Your task to perform on an android device: move a message to another label in the gmail app Image 0: 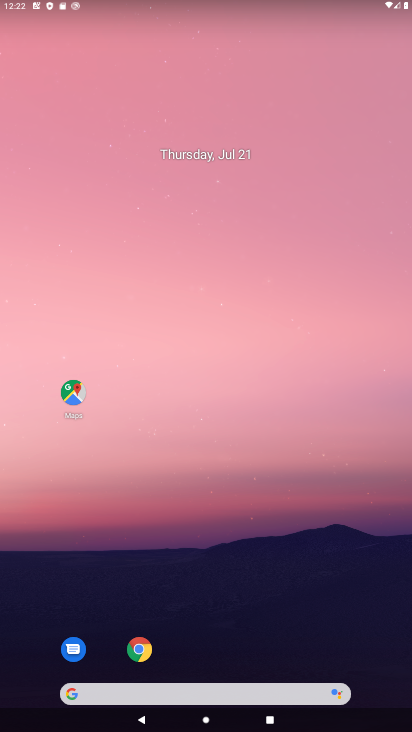
Step 0: drag from (383, 689) to (334, 47)
Your task to perform on an android device: move a message to another label in the gmail app Image 1: 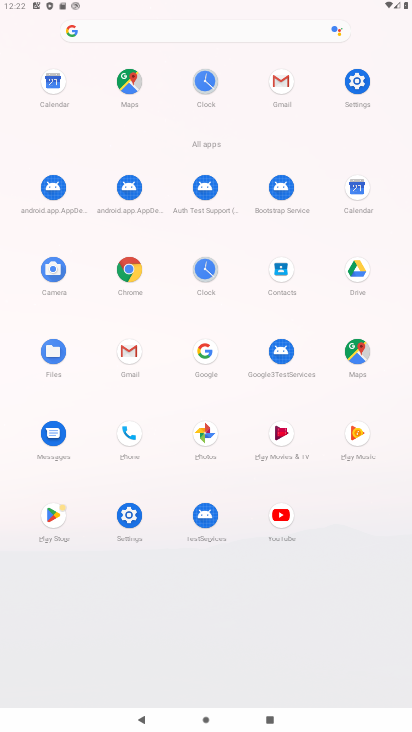
Step 1: click (127, 352)
Your task to perform on an android device: move a message to another label in the gmail app Image 2: 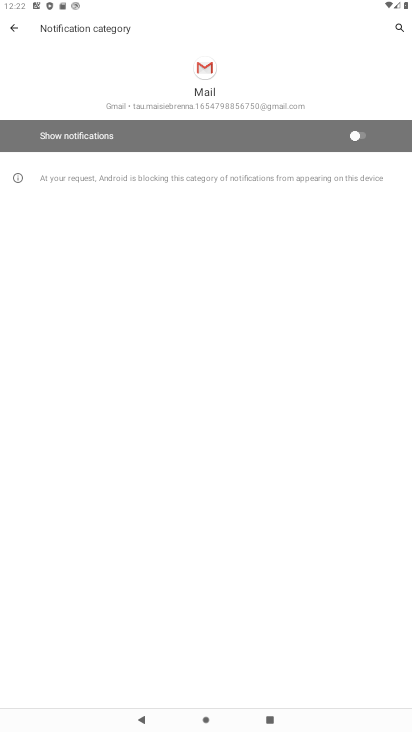
Step 2: press back button
Your task to perform on an android device: move a message to another label in the gmail app Image 3: 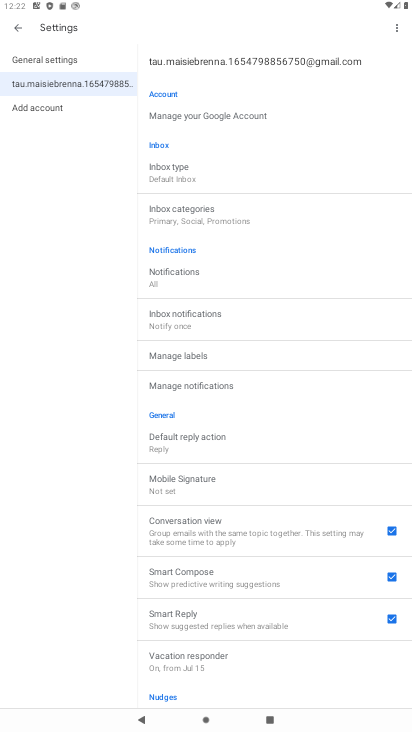
Step 3: press back button
Your task to perform on an android device: move a message to another label in the gmail app Image 4: 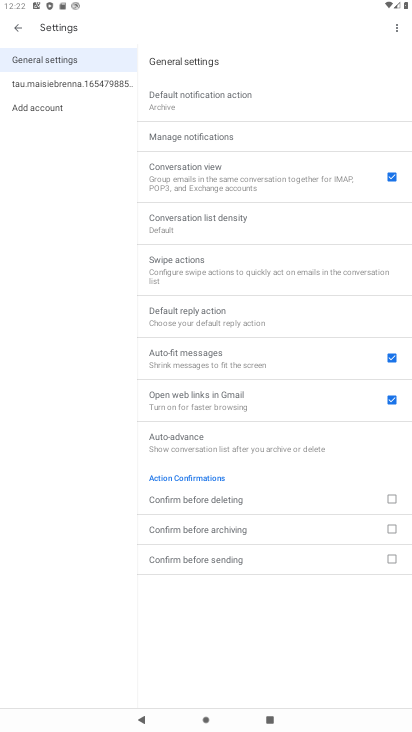
Step 4: press back button
Your task to perform on an android device: move a message to another label in the gmail app Image 5: 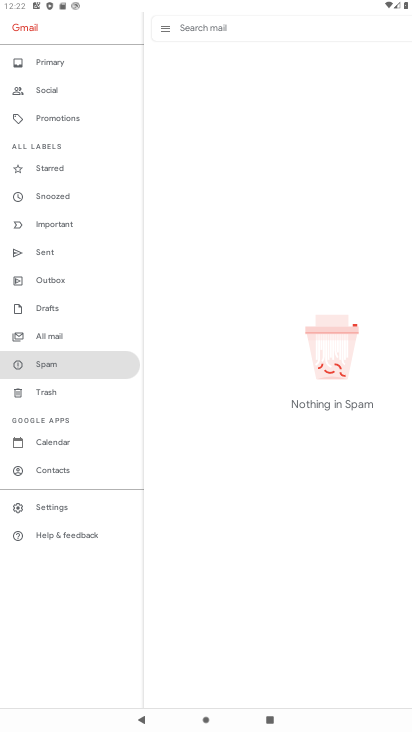
Step 5: click (53, 333)
Your task to perform on an android device: move a message to another label in the gmail app Image 6: 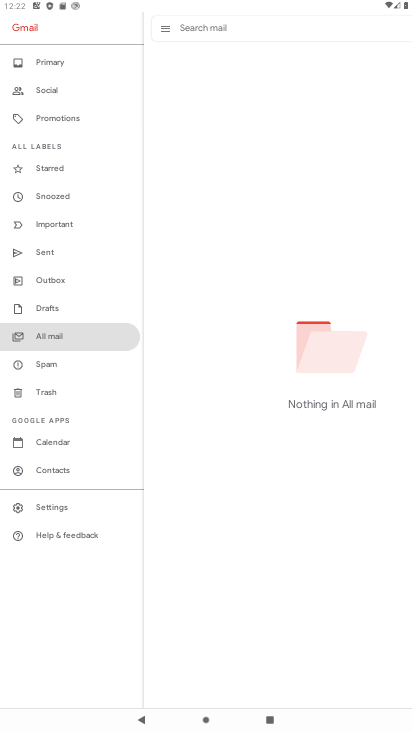
Step 6: task complete